Your task to perform on an android device: turn on notifications settings in the gmail app Image 0: 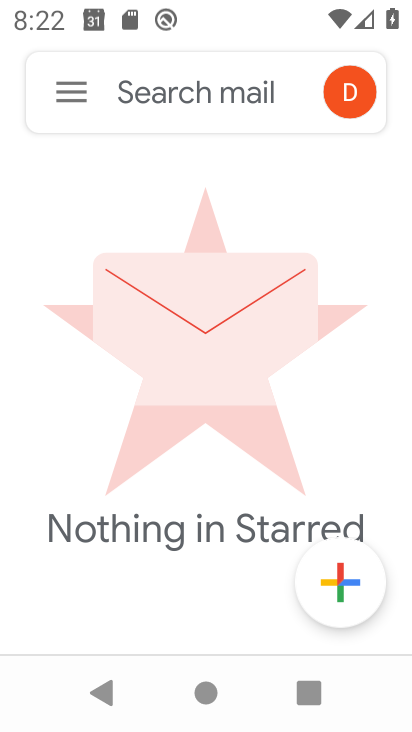
Step 0: press home button
Your task to perform on an android device: turn on notifications settings in the gmail app Image 1: 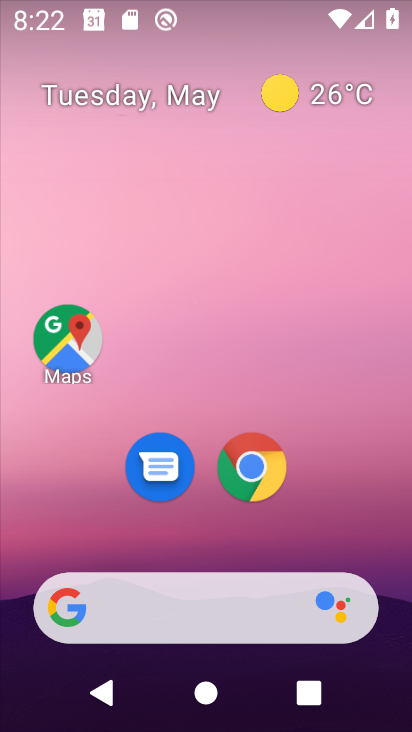
Step 1: drag from (380, 487) to (381, 121)
Your task to perform on an android device: turn on notifications settings in the gmail app Image 2: 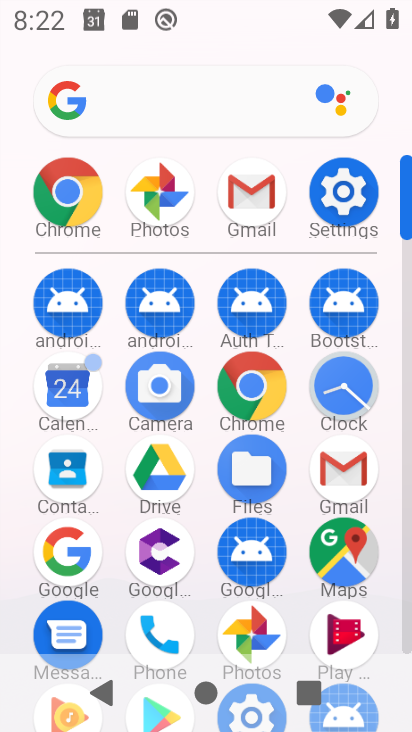
Step 2: click (244, 211)
Your task to perform on an android device: turn on notifications settings in the gmail app Image 3: 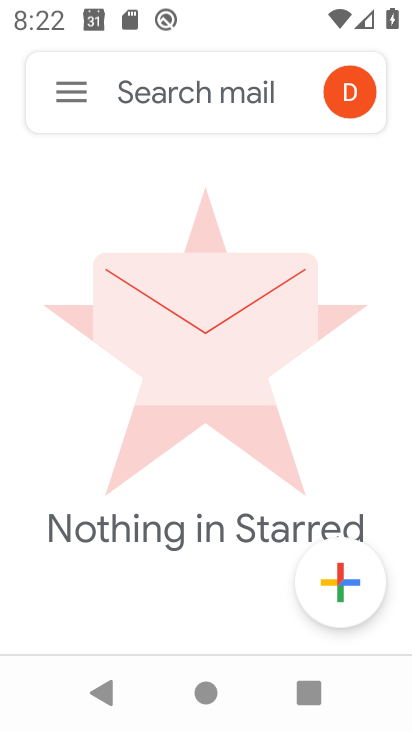
Step 3: click (80, 98)
Your task to perform on an android device: turn on notifications settings in the gmail app Image 4: 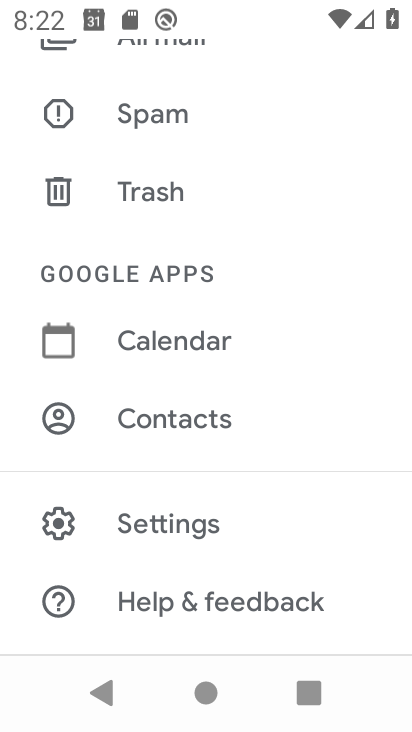
Step 4: drag from (346, 632) to (365, 318)
Your task to perform on an android device: turn on notifications settings in the gmail app Image 5: 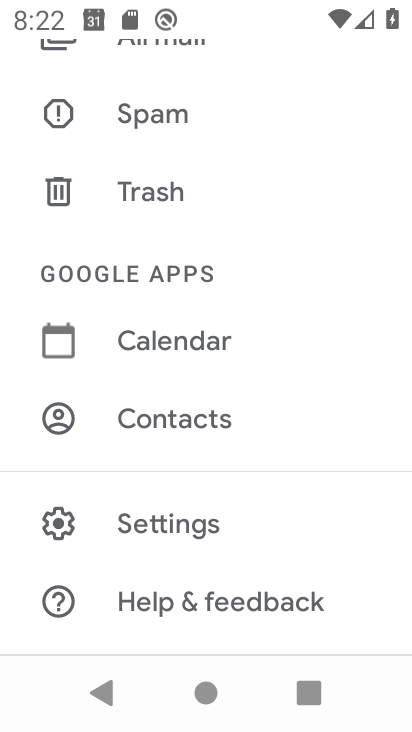
Step 5: click (158, 525)
Your task to perform on an android device: turn on notifications settings in the gmail app Image 6: 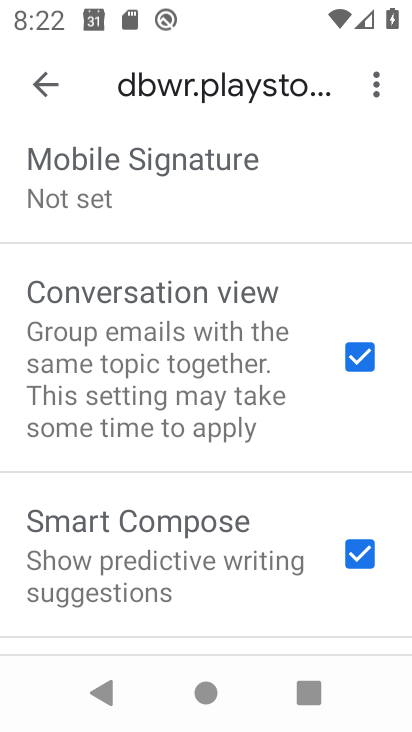
Step 6: drag from (226, 611) to (213, 326)
Your task to perform on an android device: turn on notifications settings in the gmail app Image 7: 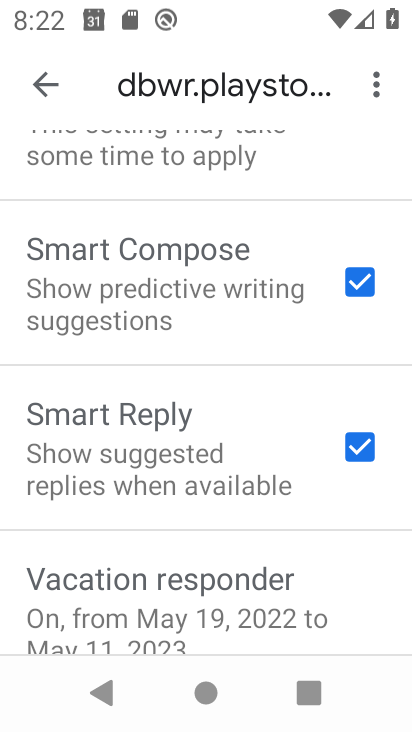
Step 7: drag from (219, 175) to (216, 582)
Your task to perform on an android device: turn on notifications settings in the gmail app Image 8: 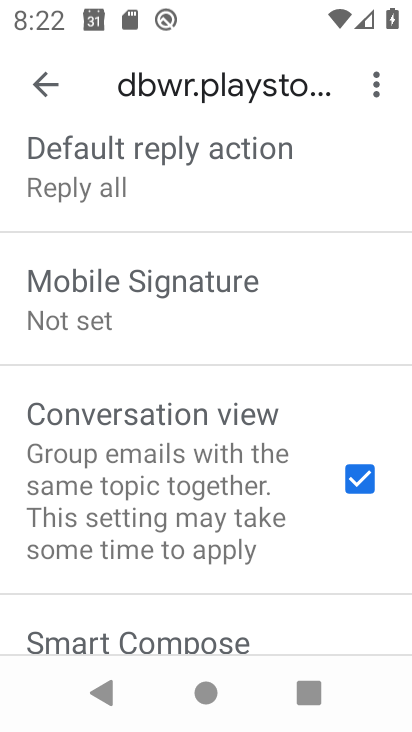
Step 8: drag from (184, 158) to (177, 576)
Your task to perform on an android device: turn on notifications settings in the gmail app Image 9: 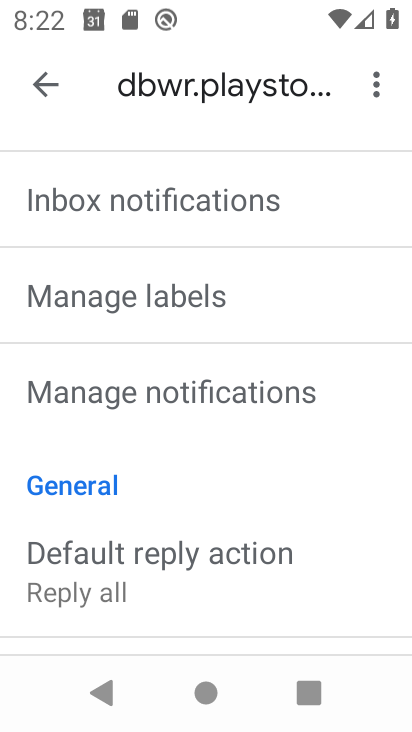
Step 9: drag from (211, 177) to (166, 603)
Your task to perform on an android device: turn on notifications settings in the gmail app Image 10: 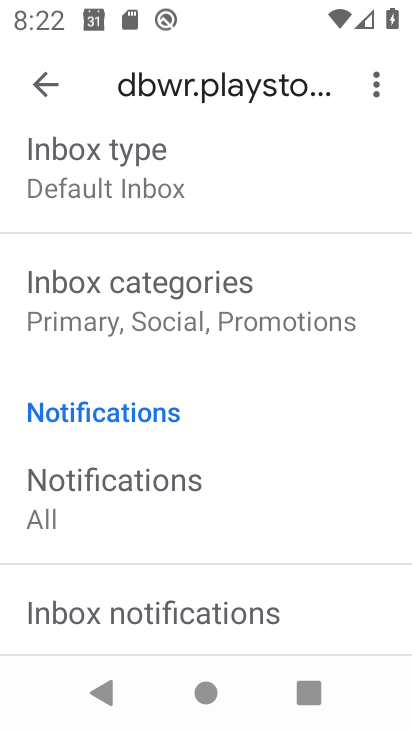
Step 10: drag from (190, 141) to (183, 472)
Your task to perform on an android device: turn on notifications settings in the gmail app Image 11: 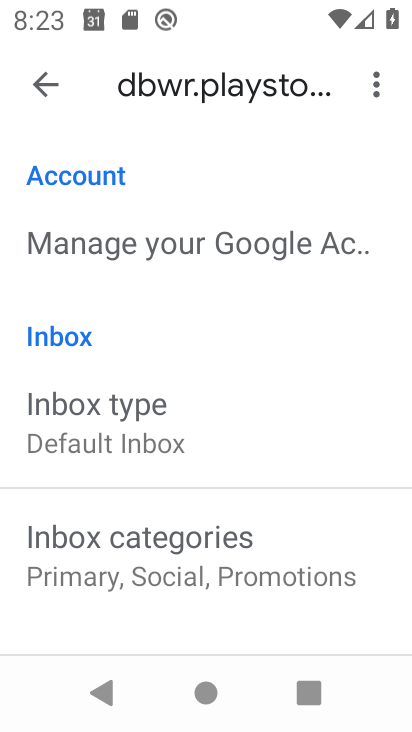
Step 11: click (34, 81)
Your task to perform on an android device: turn on notifications settings in the gmail app Image 12: 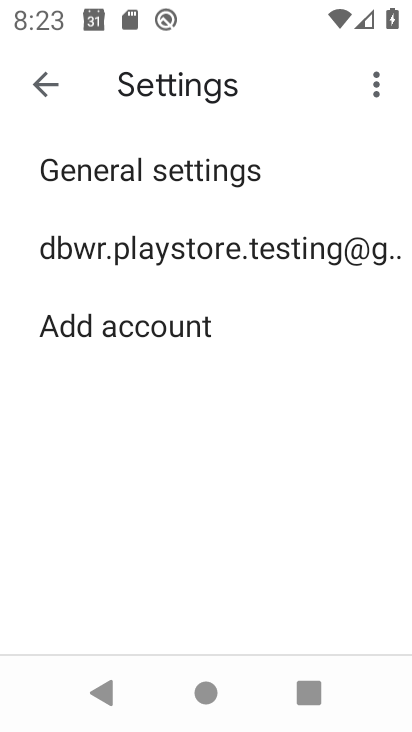
Step 12: click (115, 172)
Your task to perform on an android device: turn on notifications settings in the gmail app Image 13: 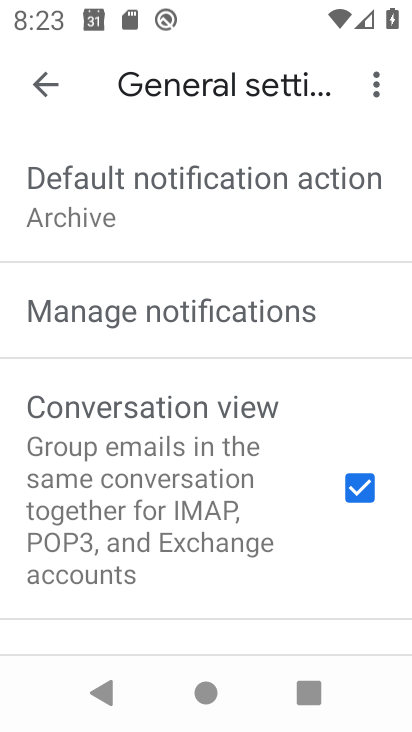
Step 13: click (152, 323)
Your task to perform on an android device: turn on notifications settings in the gmail app Image 14: 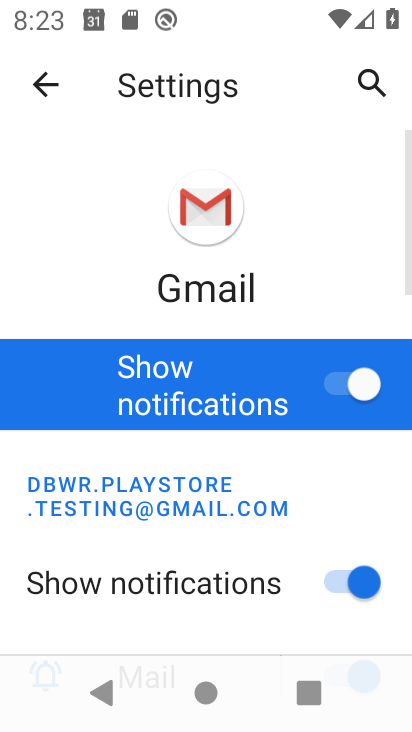
Step 14: task complete